Your task to perform on an android device: turn on wifi Image 0: 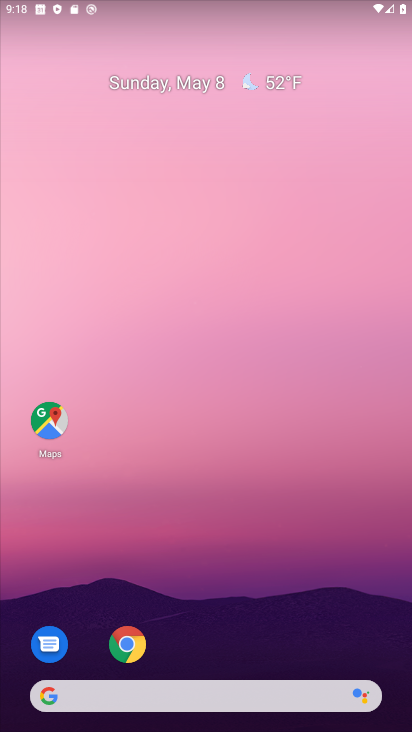
Step 0: drag from (226, 680) to (251, 151)
Your task to perform on an android device: turn on wifi Image 1: 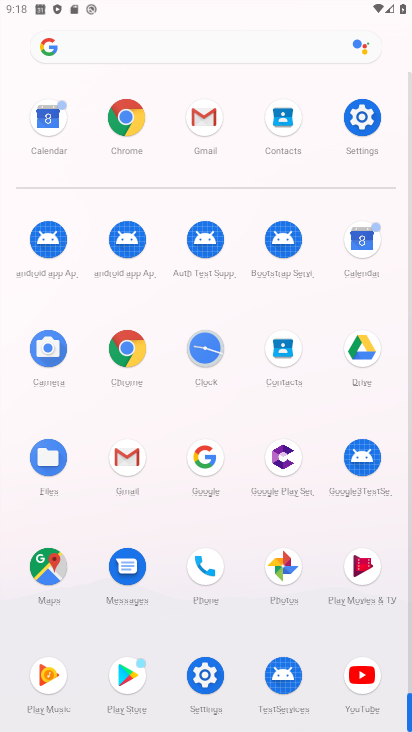
Step 1: click (368, 107)
Your task to perform on an android device: turn on wifi Image 2: 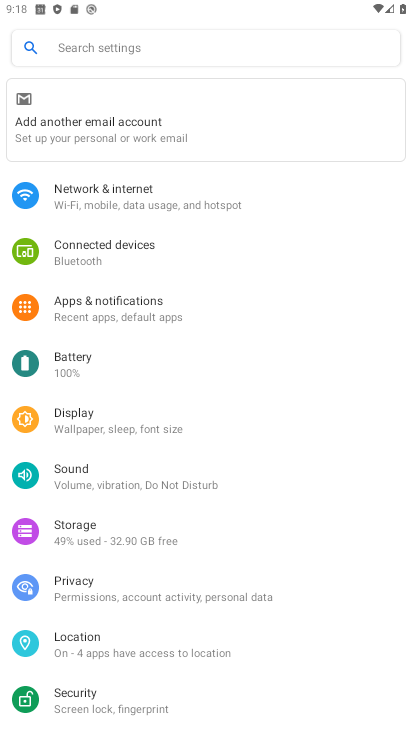
Step 2: click (169, 189)
Your task to perform on an android device: turn on wifi Image 3: 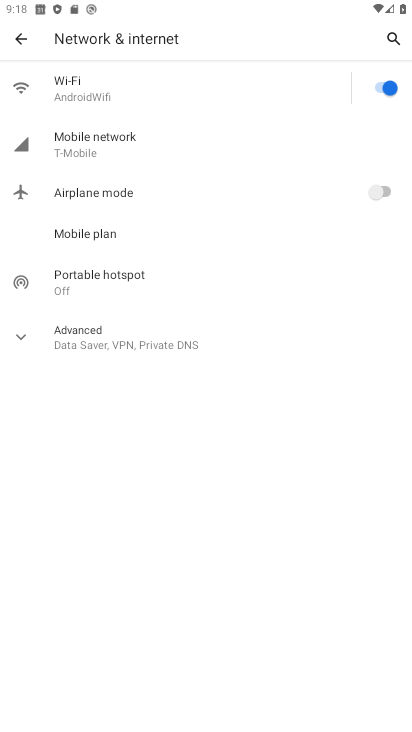
Step 3: click (149, 78)
Your task to perform on an android device: turn on wifi Image 4: 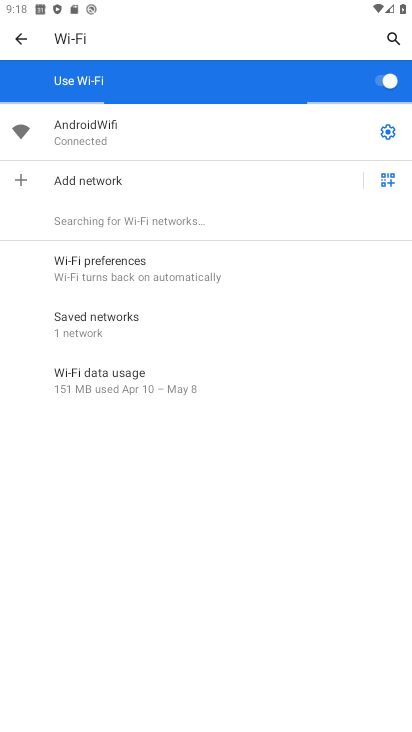
Step 4: task complete